Your task to perform on an android device: search for starred emails in the gmail app Image 0: 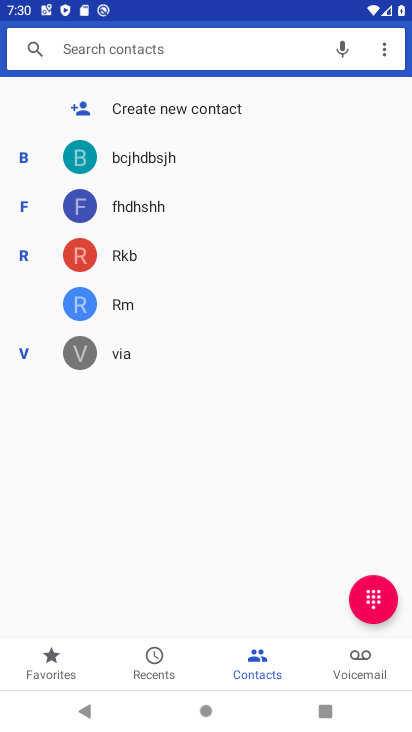
Step 0: press home button
Your task to perform on an android device: search for starred emails in the gmail app Image 1: 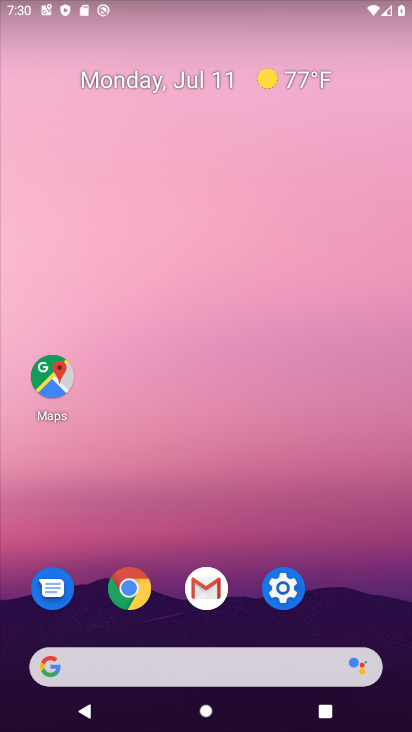
Step 1: drag from (261, 669) to (288, 127)
Your task to perform on an android device: search for starred emails in the gmail app Image 2: 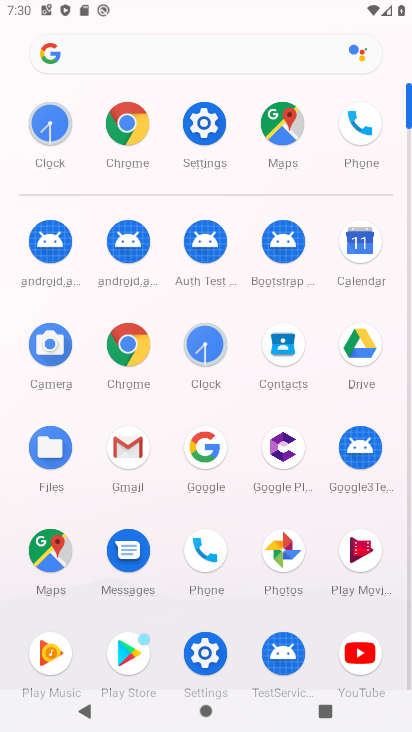
Step 2: click (132, 454)
Your task to perform on an android device: search for starred emails in the gmail app Image 3: 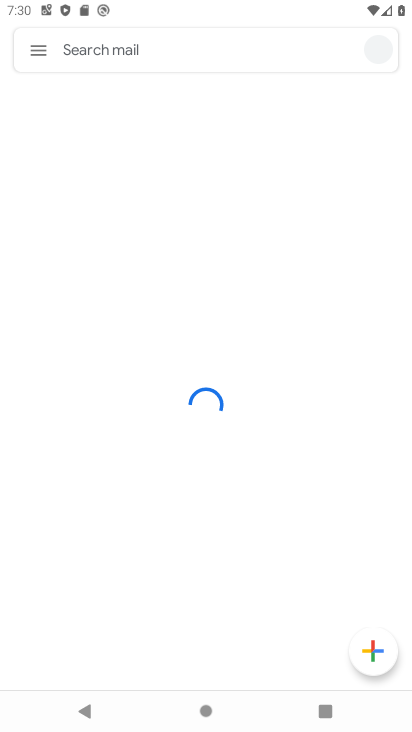
Step 3: click (31, 50)
Your task to perform on an android device: search for starred emails in the gmail app Image 4: 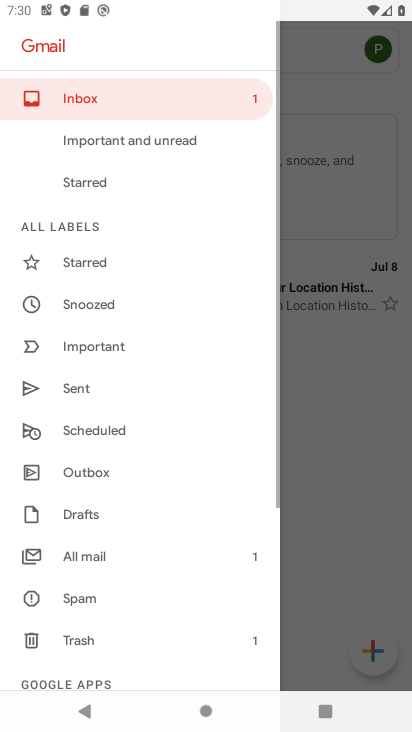
Step 4: click (109, 185)
Your task to perform on an android device: search for starred emails in the gmail app Image 5: 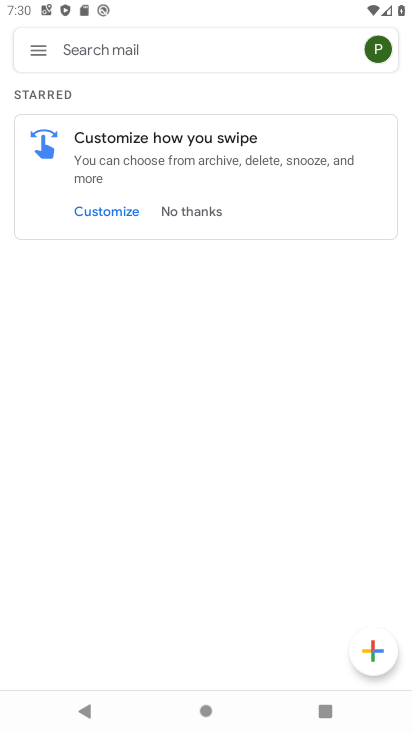
Step 5: click (170, 211)
Your task to perform on an android device: search for starred emails in the gmail app Image 6: 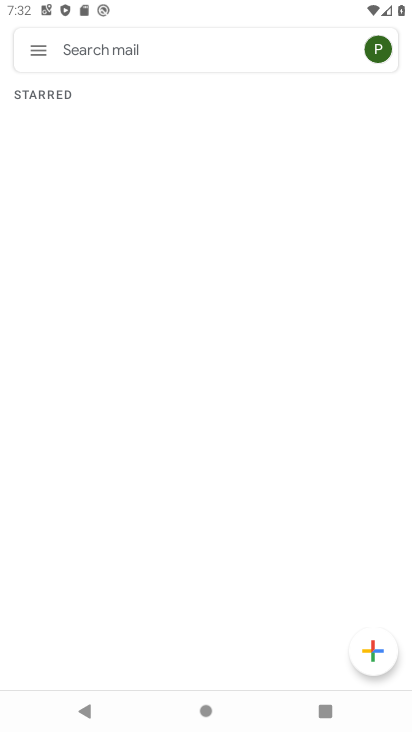
Step 6: task complete